Your task to perform on an android device: What's the weather going to be tomorrow? Image 0: 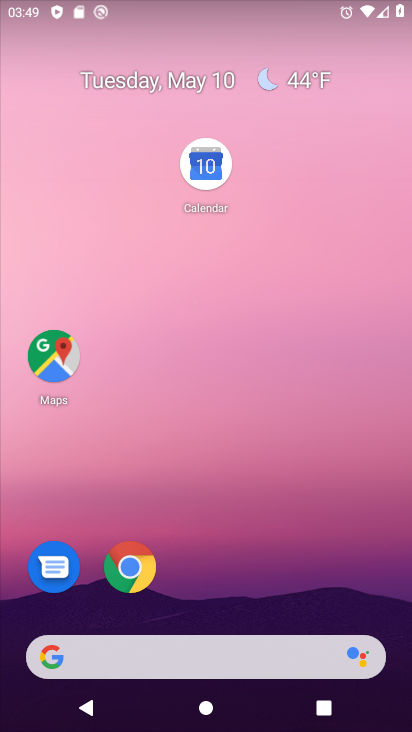
Step 0: drag from (245, 584) to (280, 4)
Your task to perform on an android device: What's the weather going to be tomorrow? Image 1: 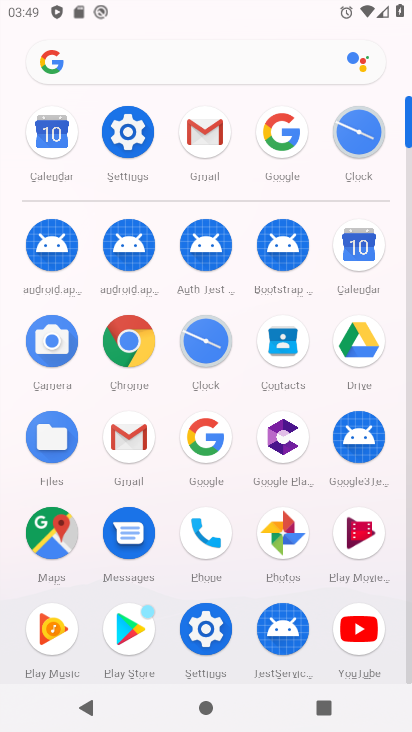
Step 1: click (204, 438)
Your task to perform on an android device: What's the weather going to be tomorrow? Image 2: 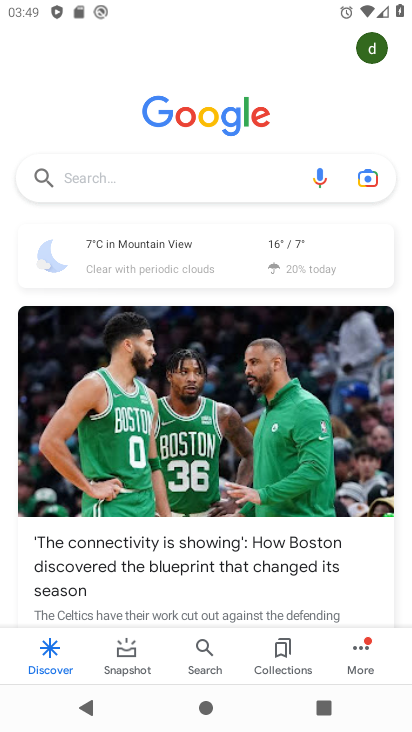
Step 2: click (183, 179)
Your task to perform on an android device: What's the weather going to be tomorrow? Image 3: 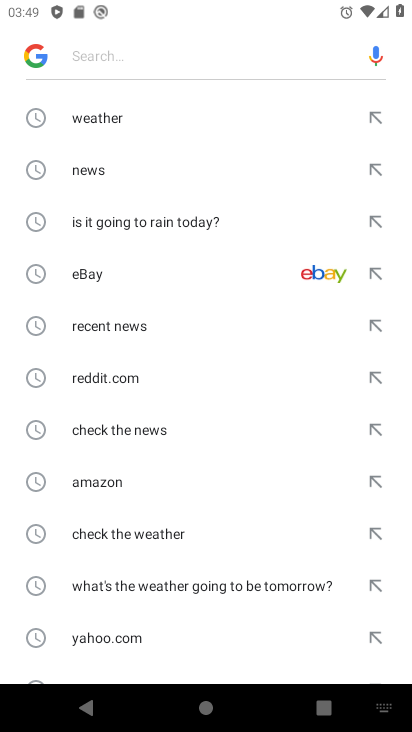
Step 3: click (206, 585)
Your task to perform on an android device: What's the weather going to be tomorrow? Image 4: 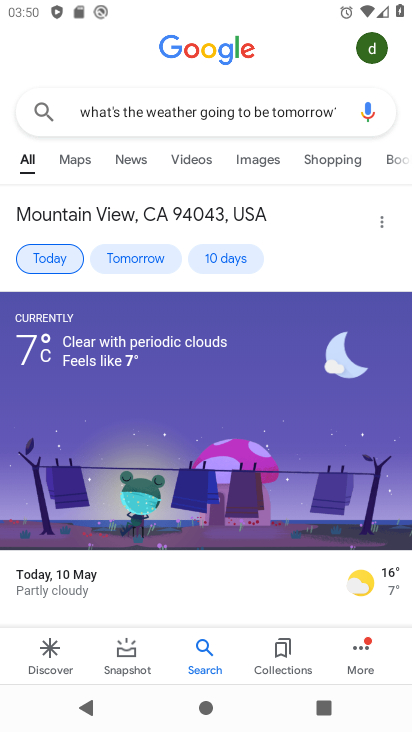
Step 4: task complete